Your task to perform on an android device: Open Google Maps and go to "Timeline" Image 0: 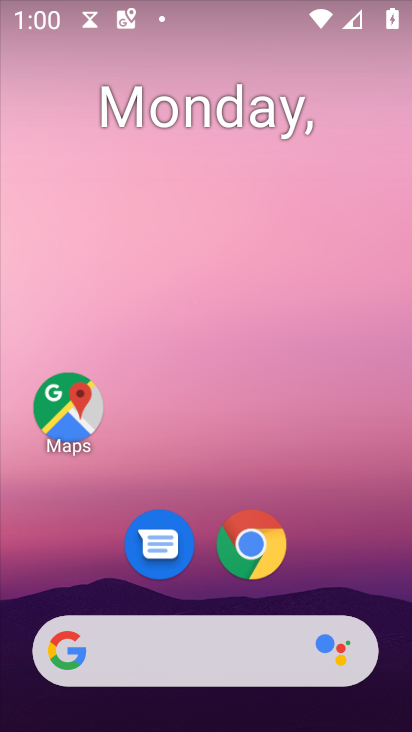
Step 0: click (258, 543)
Your task to perform on an android device: Open Google Maps and go to "Timeline" Image 1: 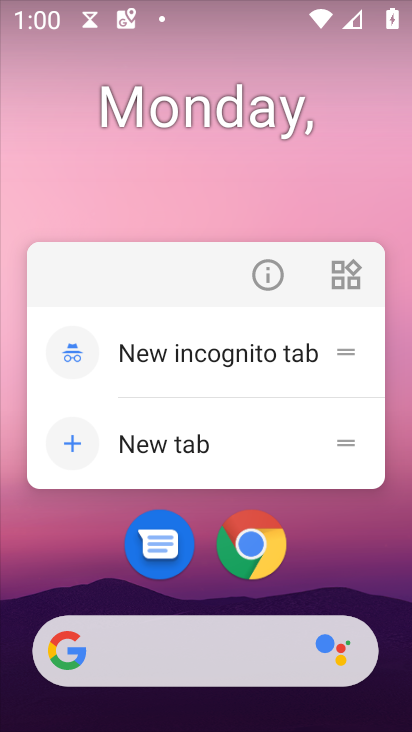
Step 1: click (60, 509)
Your task to perform on an android device: Open Google Maps and go to "Timeline" Image 2: 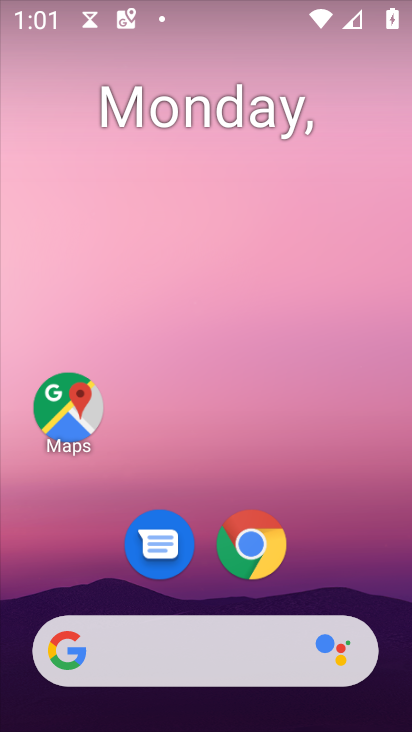
Step 2: click (58, 431)
Your task to perform on an android device: Open Google Maps and go to "Timeline" Image 3: 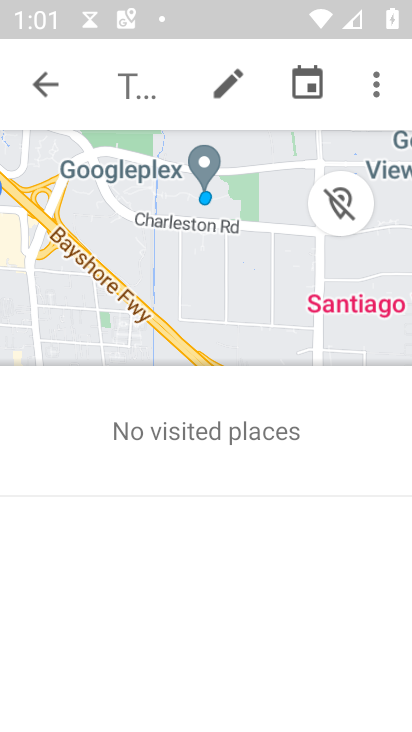
Step 3: task complete